Your task to perform on an android device: empty trash in the gmail app Image 0: 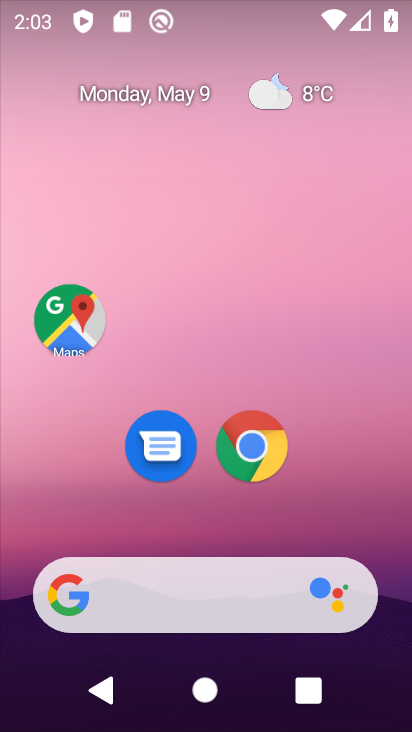
Step 0: drag from (313, 492) to (107, 109)
Your task to perform on an android device: empty trash in the gmail app Image 1: 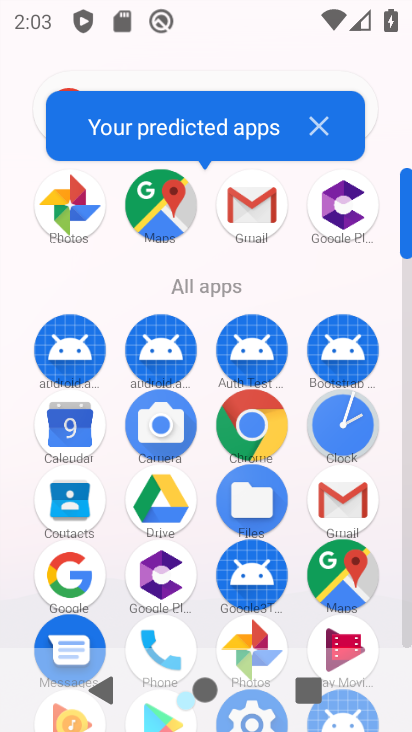
Step 1: click (249, 191)
Your task to perform on an android device: empty trash in the gmail app Image 2: 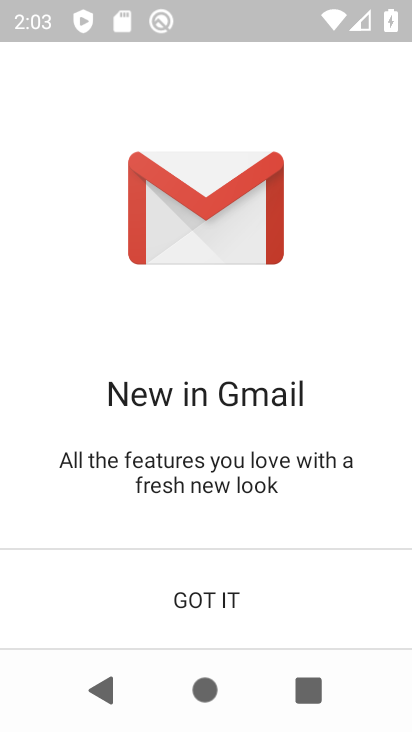
Step 2: click (193, 590)
Your task to perform on an android device: empty trash in the gmail app Image 3: 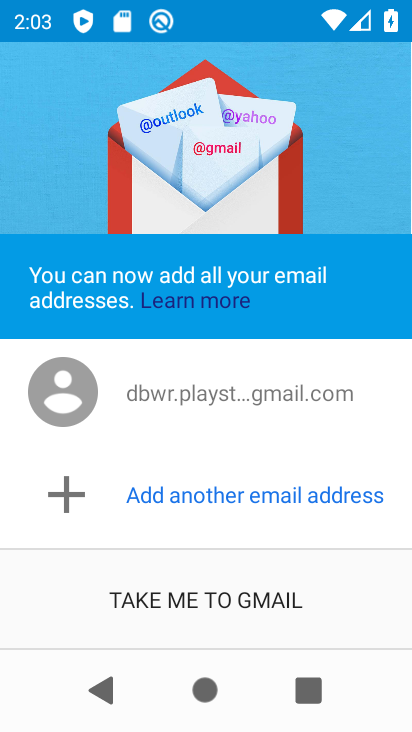
Step 3: click (193, 590)
Your task to perform on an android device: empty trash in the gmail app Image 4: 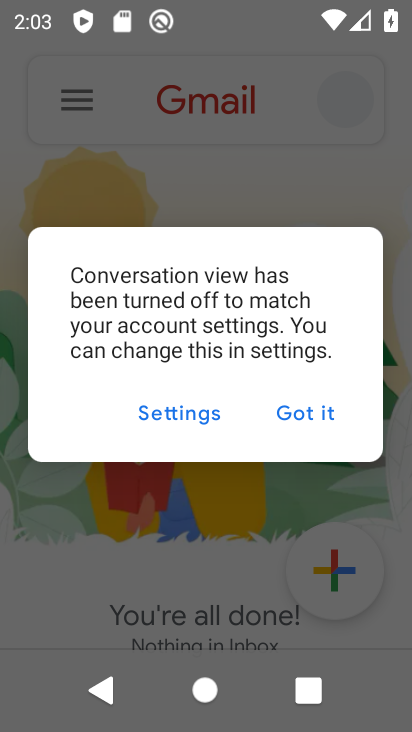
Step 4: click (282, 410)
Your task to perform on an android device: empty trash in the gmail app Image 5: 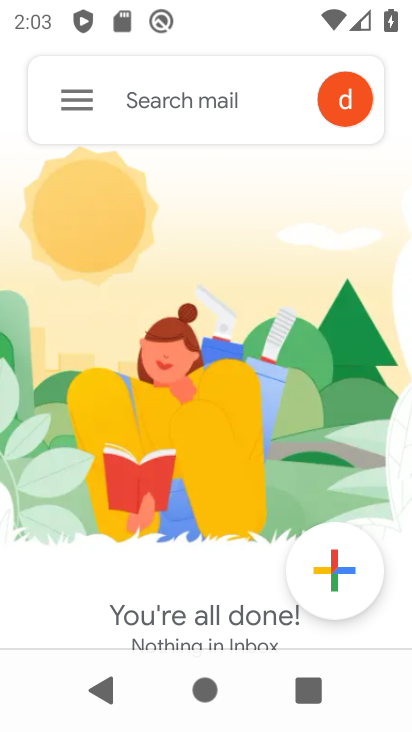
Step 5: click (69, 108)
Your task to perform on an android device: empty trash in the gmail app Image 6: 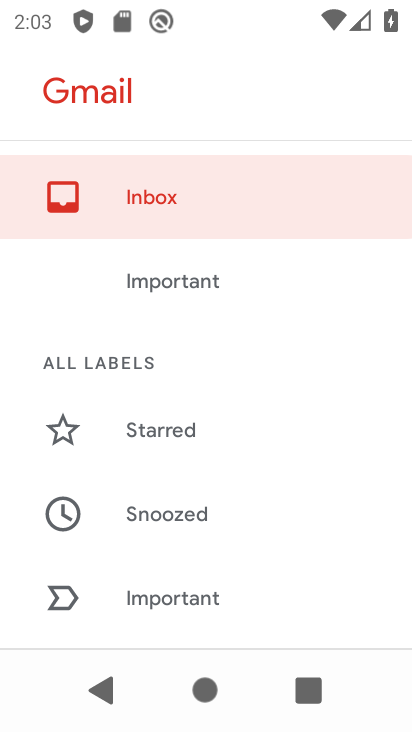
Step 6: drag from (206, 614) to (189, 146)
Your task to perform on an android device: empty trash in the gmail app Image 7: 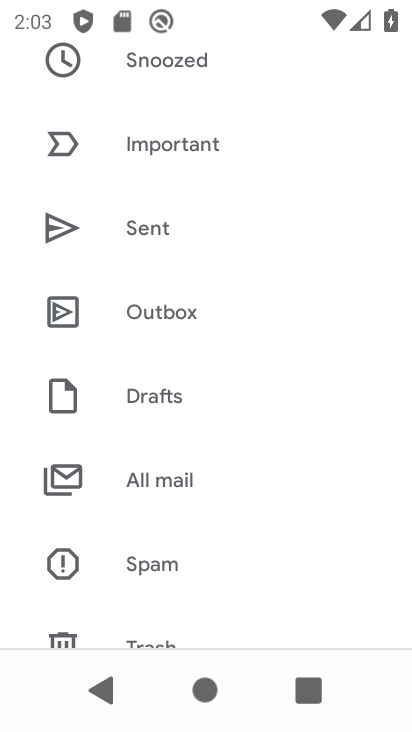
Step 7: drag from (180, 558) to (200, 293)
Your task to perform on an android device: empty trash in the gmail app Image 8: 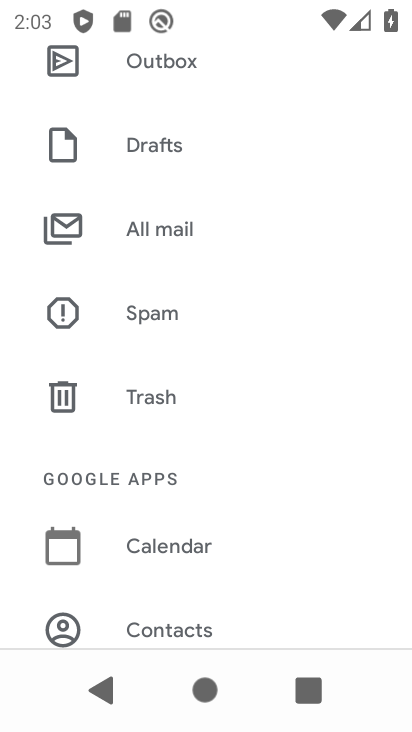
Step 8: click (114, 398)
Your task to perform on an android device: empty trash in the gmail app Image 9: 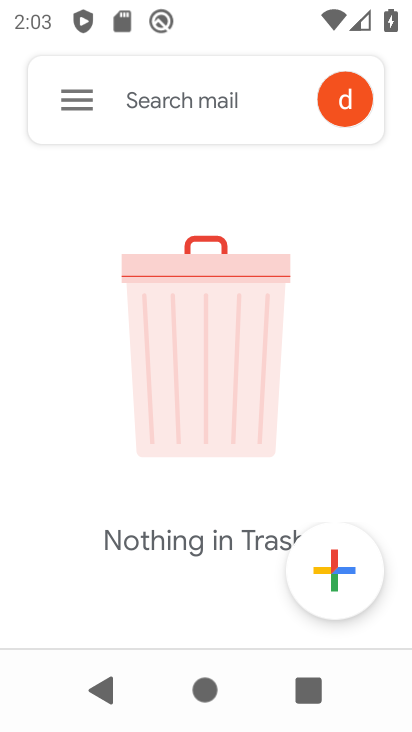
Step 9: task complete